Your task to perform on an android device: set the stopwatch Image 0: 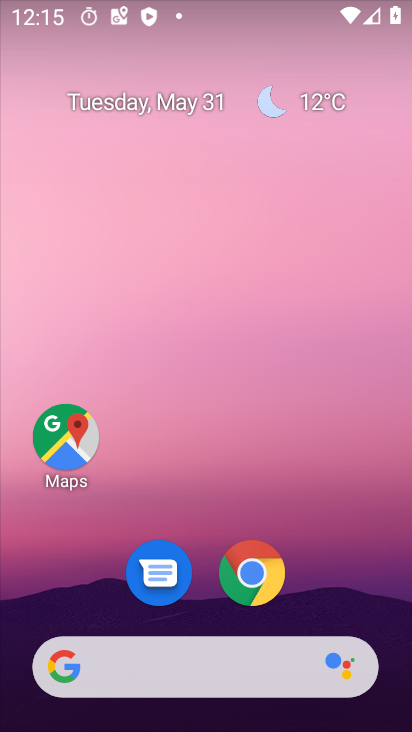
Step 0: drag from (343, 559) to (360, 129)
Your task to perform on an android device: set the stopwatch Image 1: 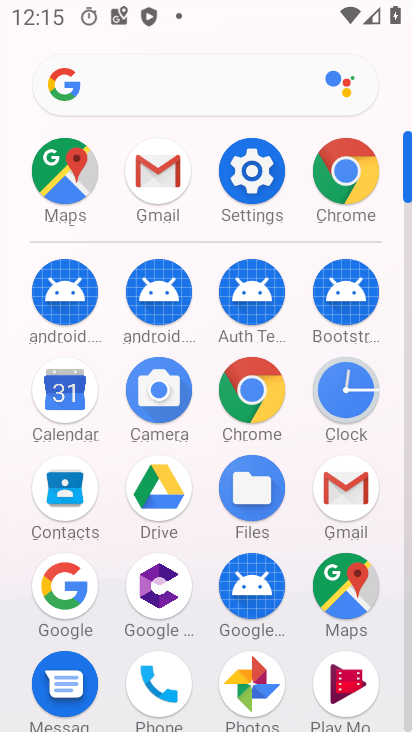
Step 1: click (334, 380)
Your task to perform on an android device: set the stopwatch Image 2: 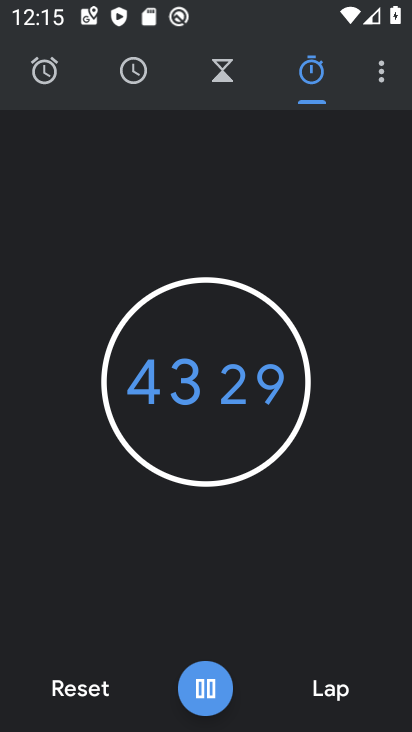
Step 2: task complete